Your task to perform on an android device: change alarm snooze length Image 0: 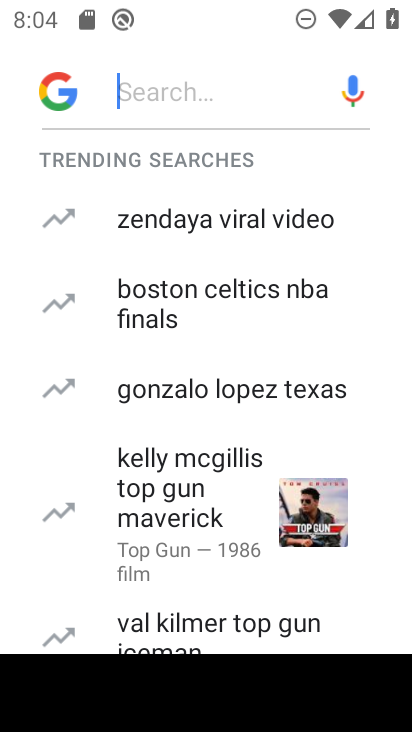
Step 0: press back button
Your task to perform on an android device: change alarm snooze length Image 1: 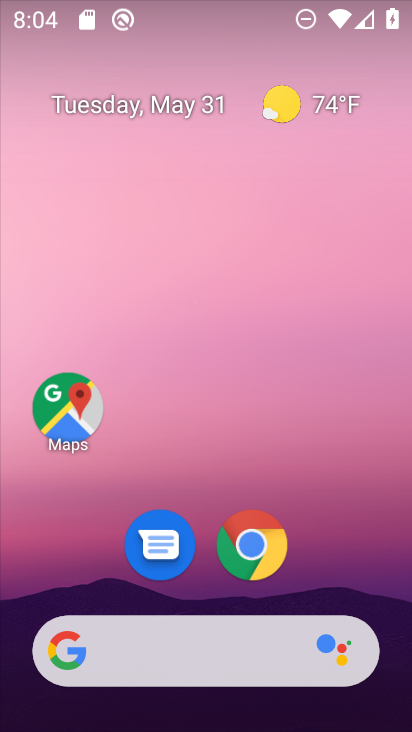
Step 1: drag from (329, 535) to (256, 10)
Your task to perform on an android device: change alarm snooze length Image 2: 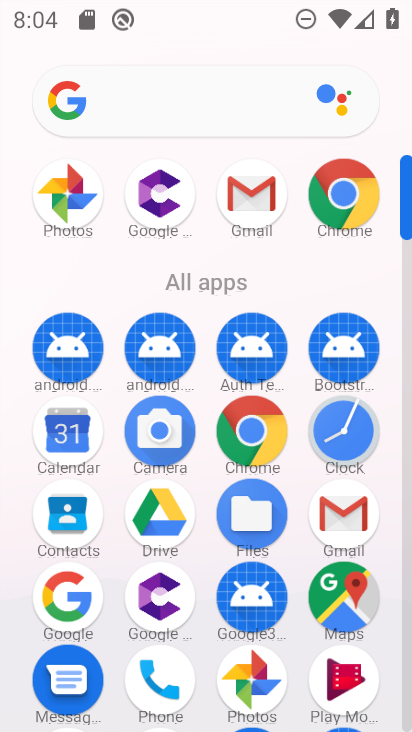
Step 2: drag from (16, 540) to (24, 290)
Your task to perform on an android device: change alarm snooze length Image 3: 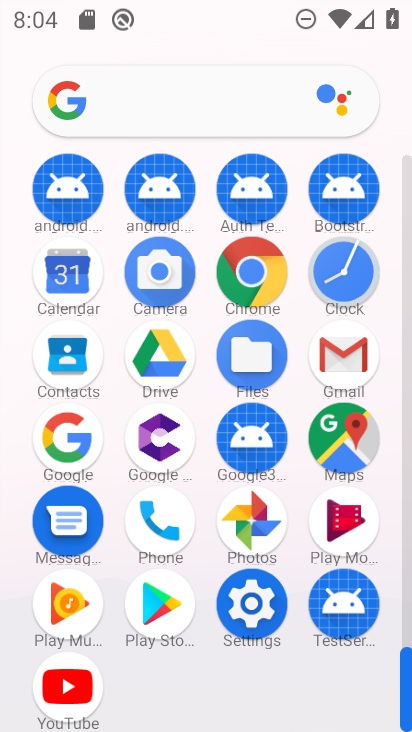
Step 3: click (347, 266)
Your task to perform on an android device: change alarm snooze length Image 4: 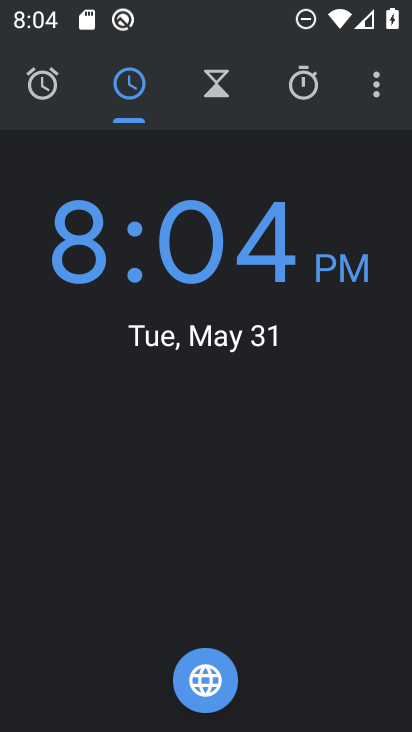
Step 4: drag from (376, 91) to (291, 164)
Your task to perform on an android device: change alarm snooze length Image 5: 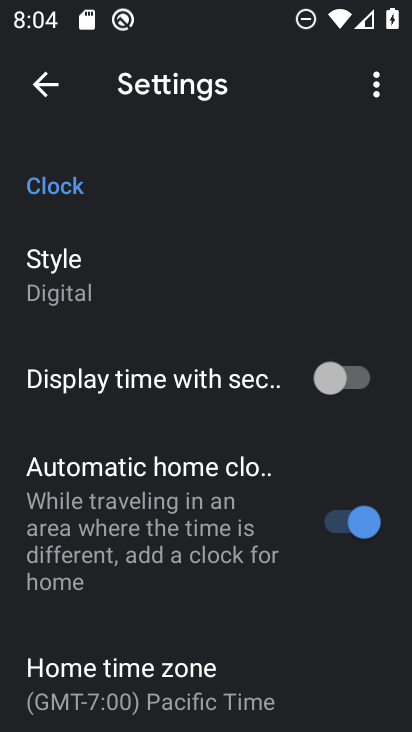
Step 5: drag from (198, 599) to (199, 168)
Your task to perform on an android device: change alarm snooze length Image 6: 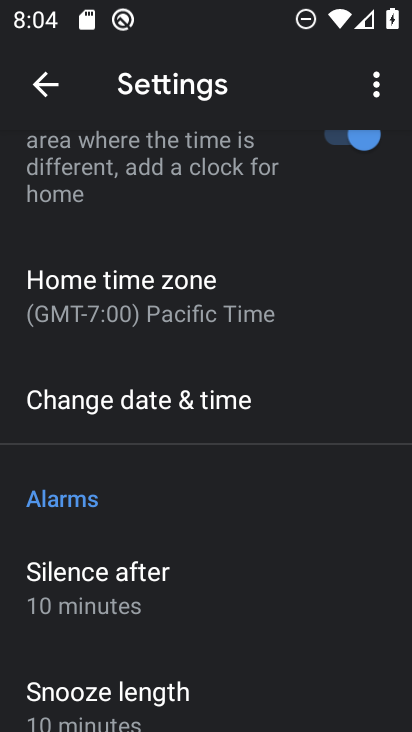
Step 6: click (163, 698)
Your task to perform on an android device: change alarm snooze length Image 7: 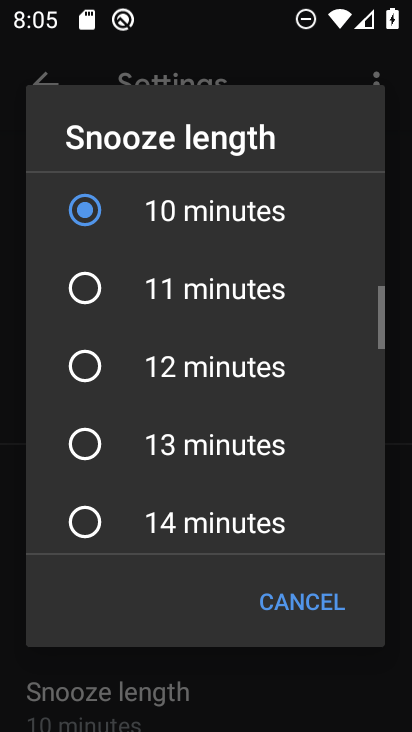
Step 7: click (160, 281)
Your task to perform on an android device: change alarm snooze length Image 8: 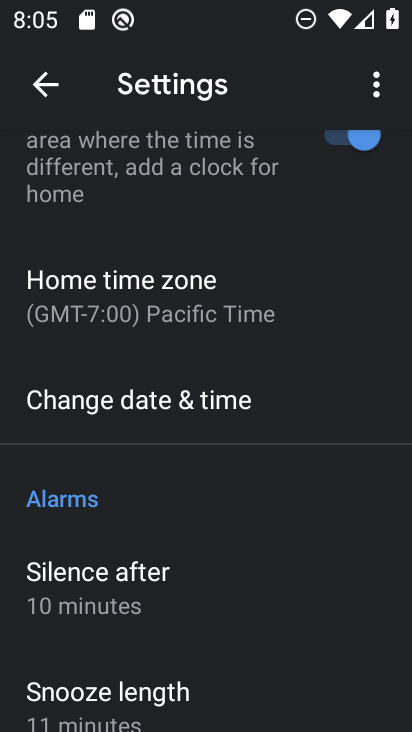
Step 8: task complete